Your task to perform on an android device: Open Youtube and go to the subscriptions tab Image 0: 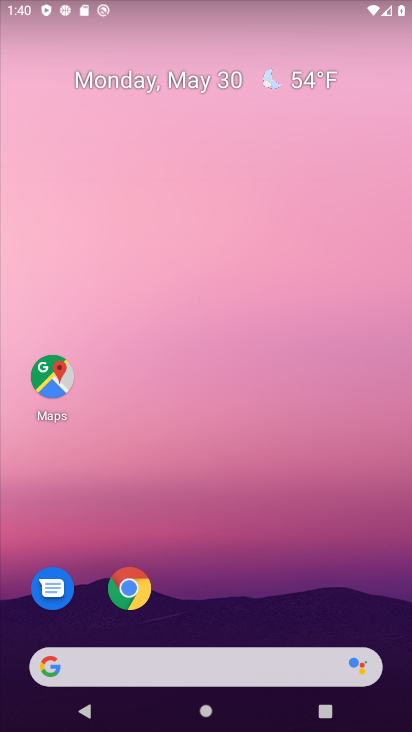
Step 0: drag from (211, 622) to (294, 139)
Your task to perform on an android device: Open Youtube and go to the subscriptions tab Image 1: 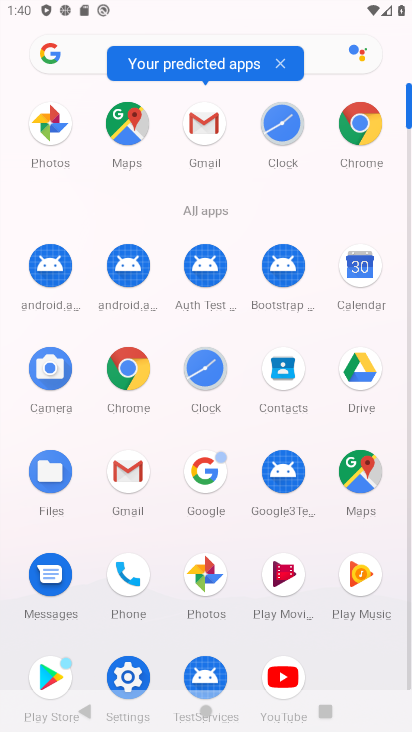
Step 1: click (282, 670)
Your task to perform on an android device: Open Youtube and go to the subscriptions tab Image 2: 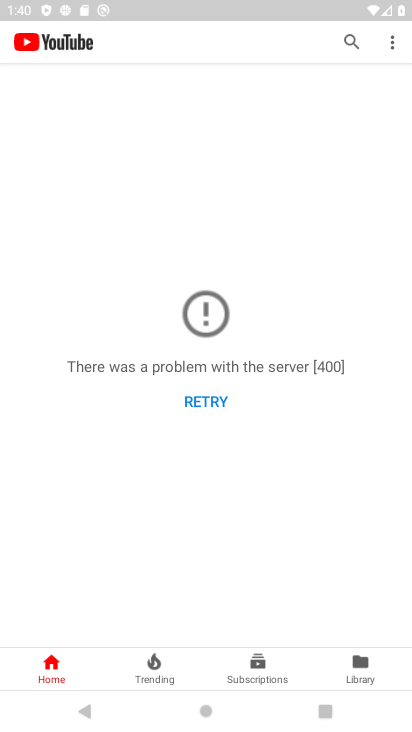
Step 2: click (277, 670)
Your task to perform on an android device: Open Youtube and go to the subscriptions tab Image 3: 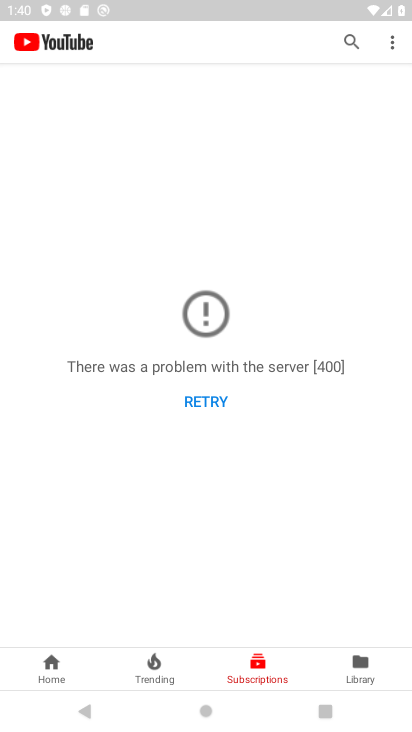
Step 3: click (276, 671)
Your task to perform on an android device: Open Youtube and go to the subscriptions tab Image 4: 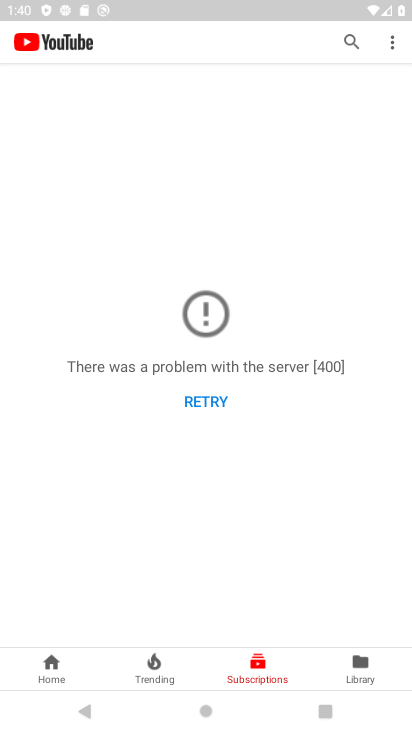
Step 4: task complete